Your task to perform on an android device: change notification settings in the gmail app Image 0: 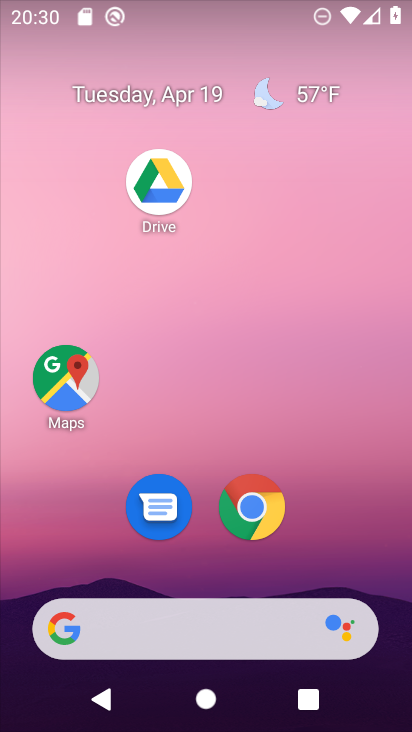
Step 0: drag from (360, 526) to (341, 194)
Your task to perform on an android device: change notification settings in the gmail app Image 1: 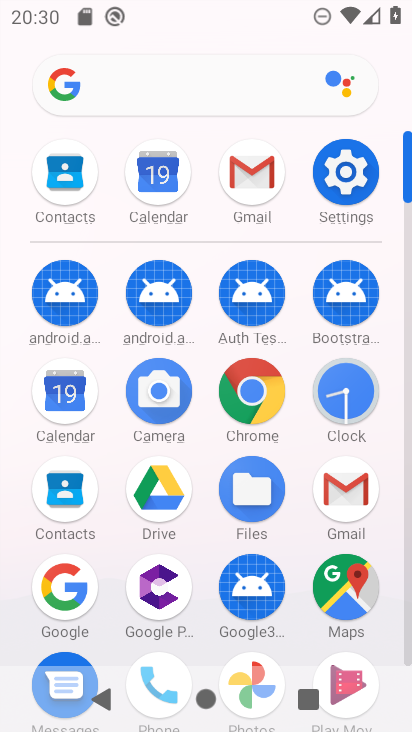
Step 1: click (261, 174)
Your task to perform on an android device: change notification settings in the gmail app Image 2: 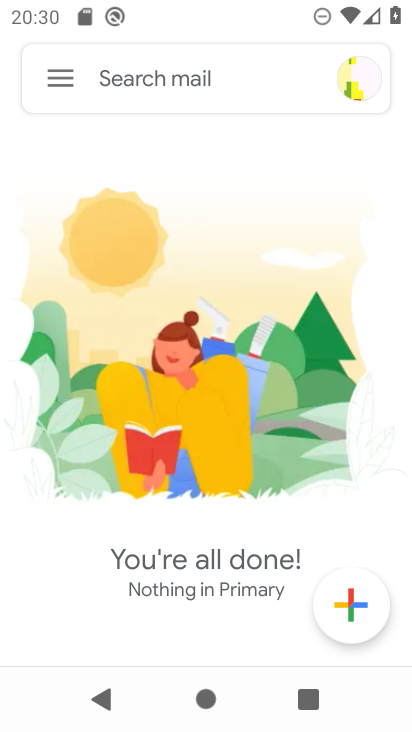
Step 2: click (65, 74)
Your task to perform on an android device: change notification settings in the gmail app Image 3: 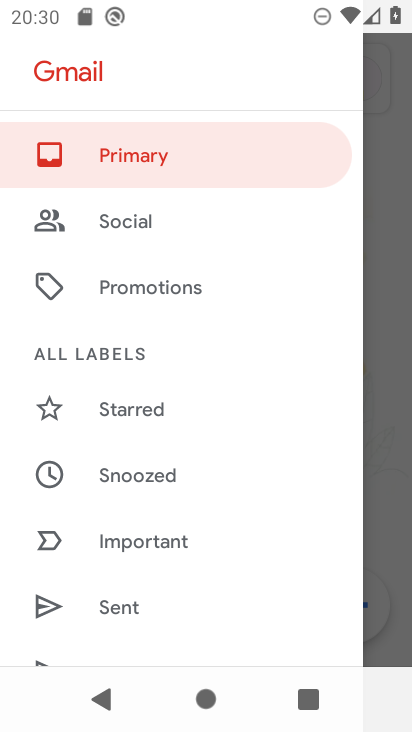
Step 3: drag from (234, 520) to (251, 92)
Your task to perform on an android device: change notification settings in the gmail app Image 4: 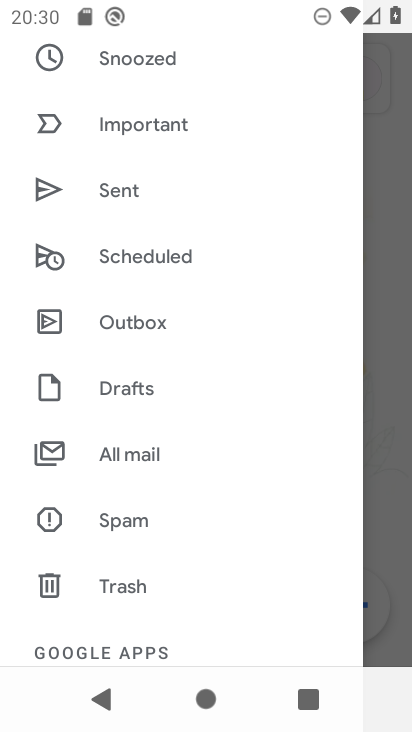
Step 4: drag from (251, 564) to (244, 215)
Your task to perform on an android device: change notification settings in the gmail app Image 5: 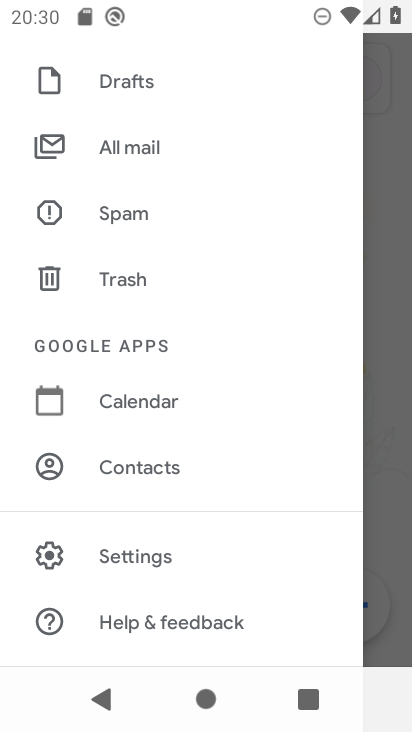
Step 5: click (156, 553)
Your task to perform on an android device: change notification settings in the gmail app Image 6: 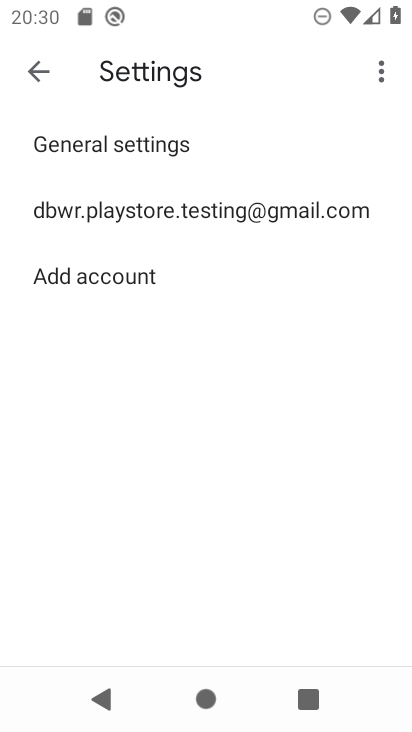
Step 6: click (189, 198)
Your task to perform on an android device: change notification settings in the gmail app Image 7: 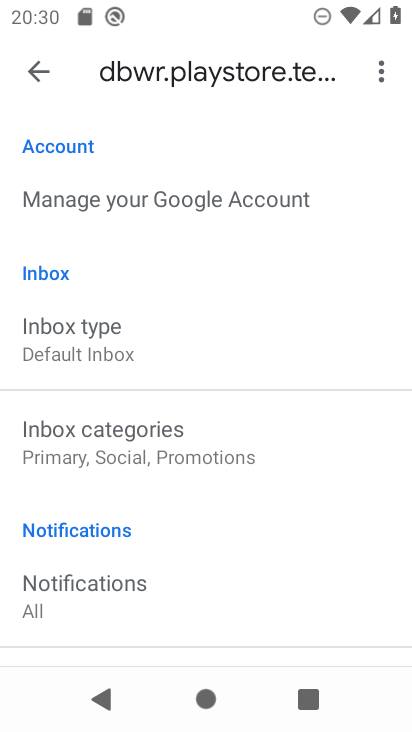
Step 7: drag from (221, 525) to (242, 214)
Your task to perform on an android device: change notification settings in the gmail app Image 8: 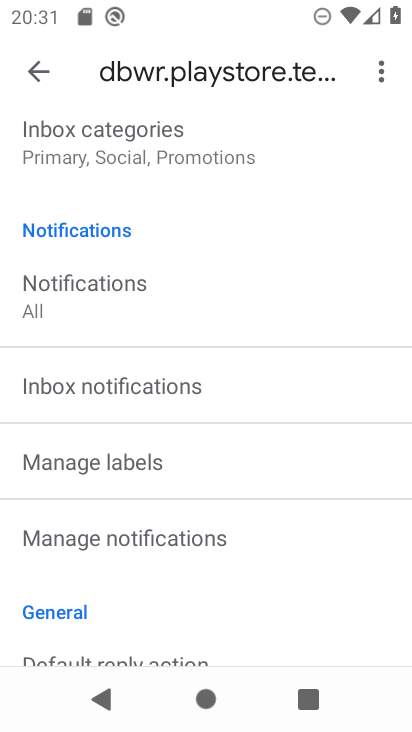
Step 8: click (205, 545)
Your task to perform on an android device: change notification settings in the gmail app Image 9: 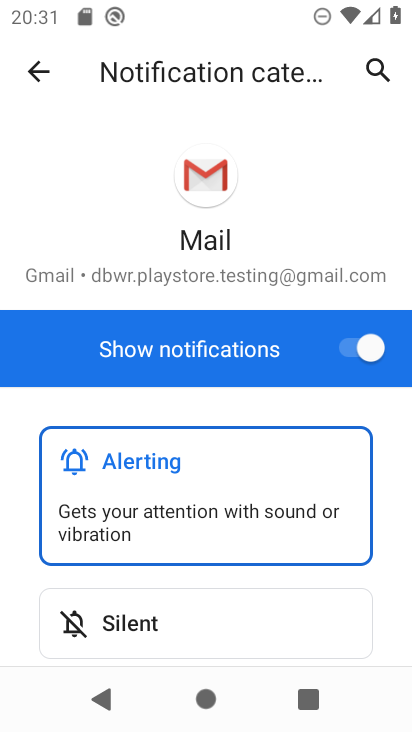
Step 9: click (346, 346)
Your task to perform on an android device: change notification settings in the gmail app Image 10: 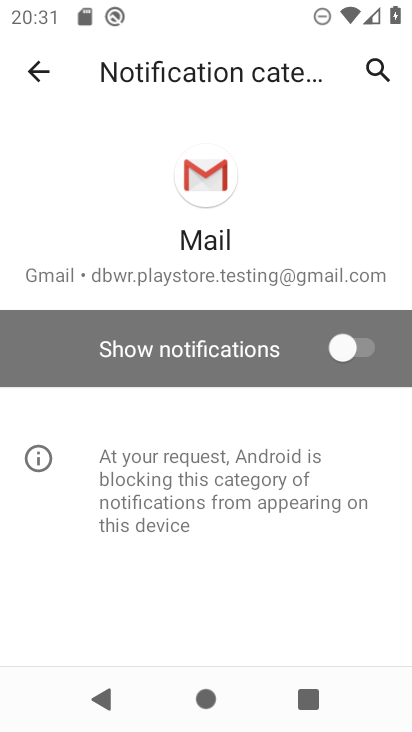
Step 10: task complete